Your task to perform on an android device: change notification settings in the gmail app Image 0: 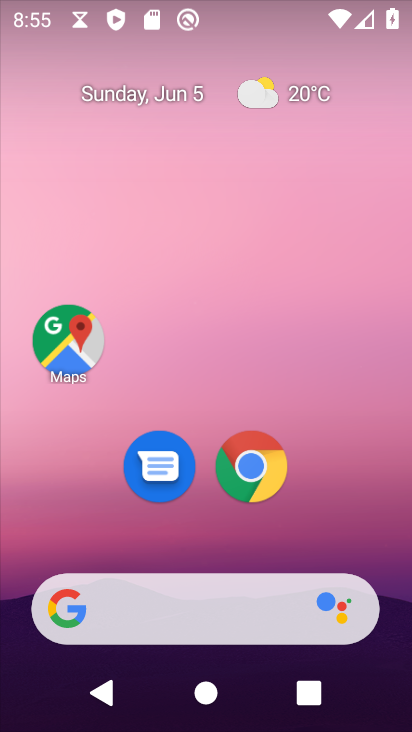
Step 0: drag from (238, 551) to (201, 128)
Your task to perform on an android device: change notification settings in the gmail app Image 1: 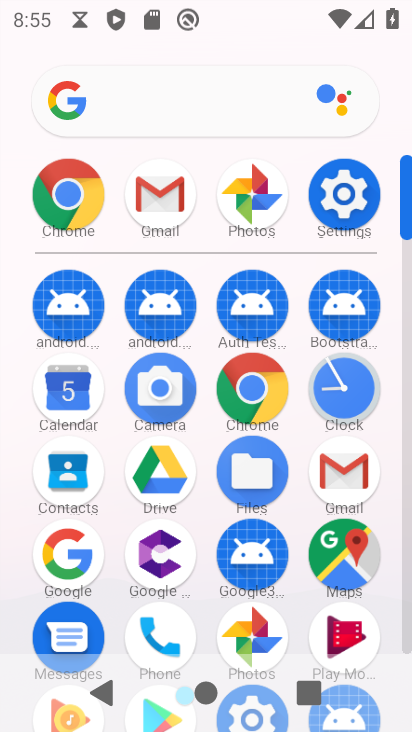
Step 1: click (156, 214)
Your task to perform on an android device: change notification settings in the gmail app Image 2: 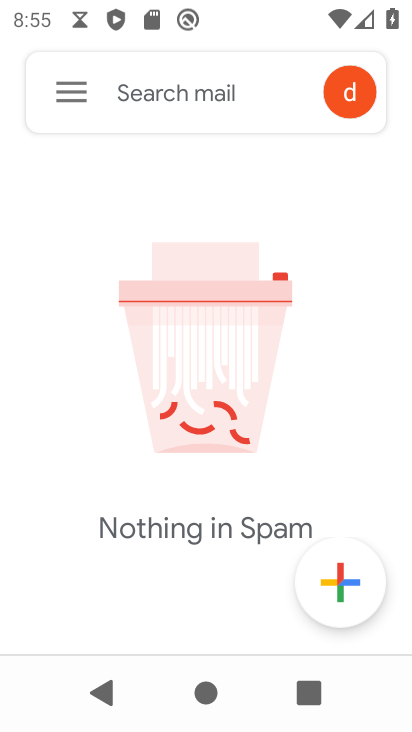
Step 2: click (73, 86)
Your task to perform on an android device: change notification settings in the gmail app Image 3: 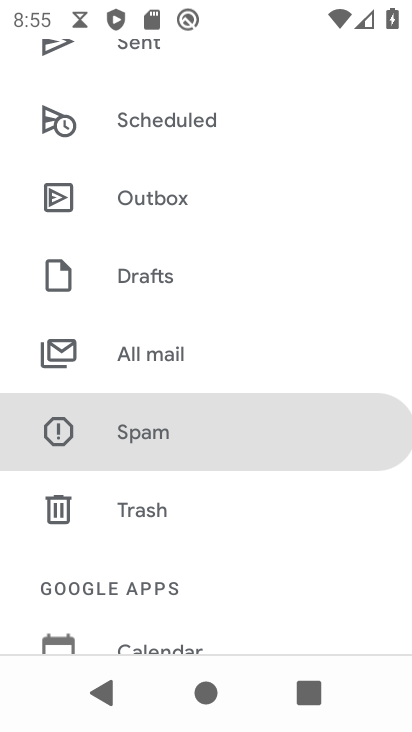
Step 3: drag from (241, 579) to (235, 262)
Your task to perform on an android device: change notification settings in the gmail app Image 4: 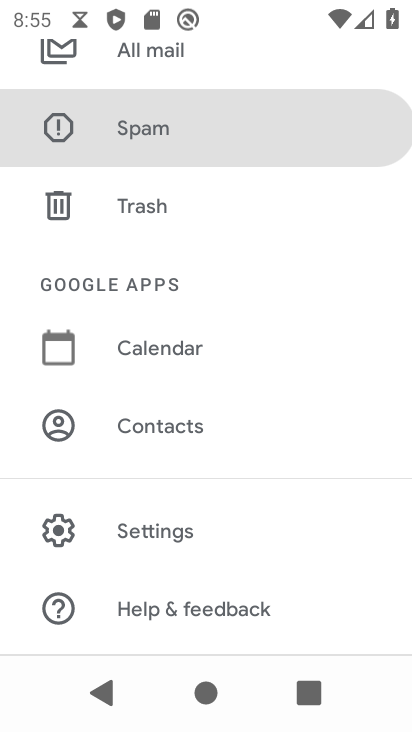
Step 4: click (141, 535)
Your task to perform on an android device: change notification settings in the gmail app Image 5: 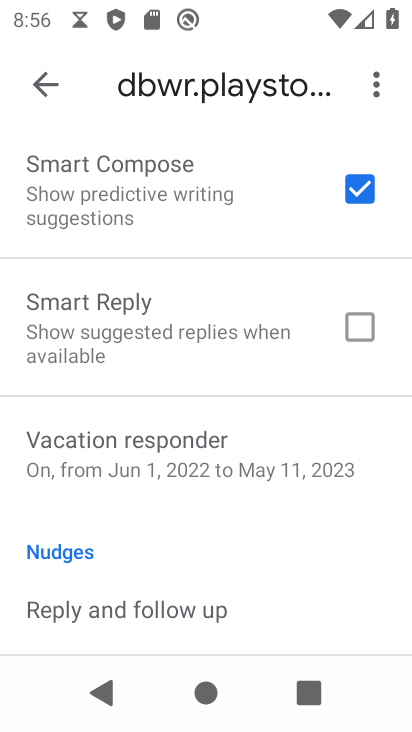
Step 5: drag from (192, 222) to (154, 571)
Your task to perform on an android device: change notification settings in the gmail app Image 6: 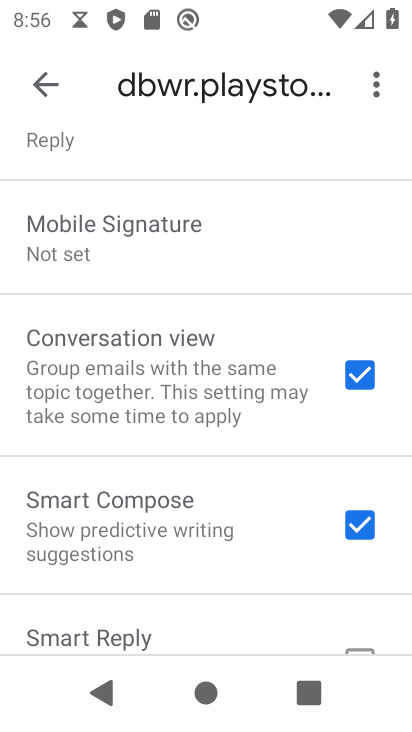
Step 6: drag from (170, 283) to (126, 557)
Your task to perform on an android device: change notification settings in the gmail app Image 7: 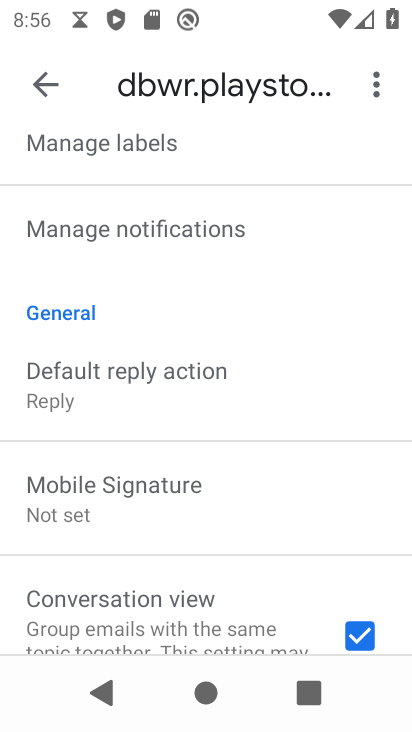
Step 7: drag from (152, 254) to (140, 580)
Your task to perform on an android device: change notification settings in the gmail app Image 8: 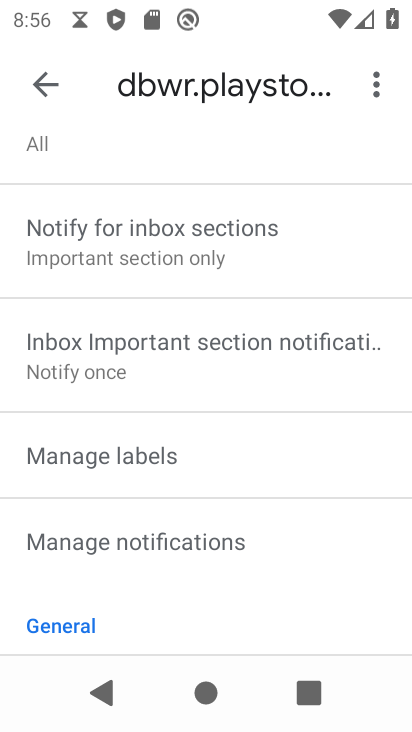
Step 8: drag from (202, 328) to (173, 534)
Your task to perform on an android device: change notification settings in the gmail app Image 9: 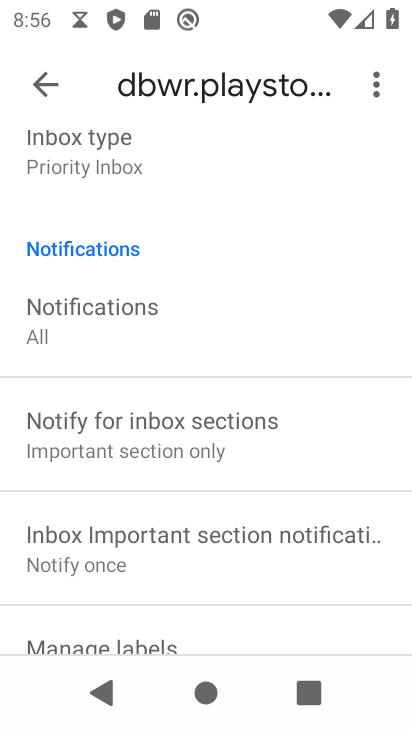
Step 9: drag from (133, 579) to (149, 239)
Your task to perform on an android device: change notification settings in the gmail app Image 10: 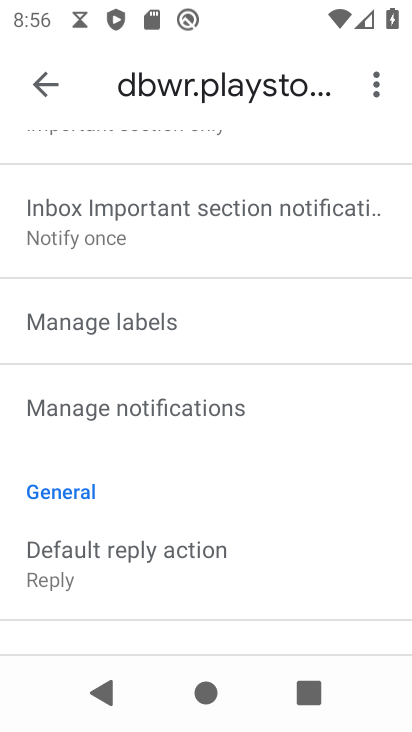
Step 10: click (174, 403)
Your task to perform on an android device: change notification settings in the gmail app Image 11: 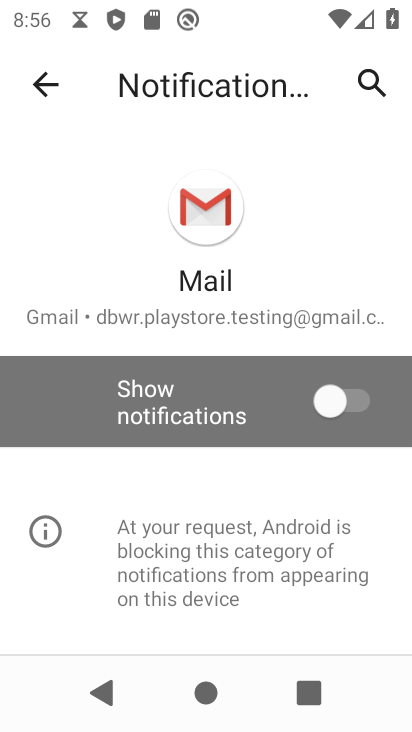
Step 11: click (345, 416)
Your task to perform on an android device: change notification settings in the gmail app Image 12: 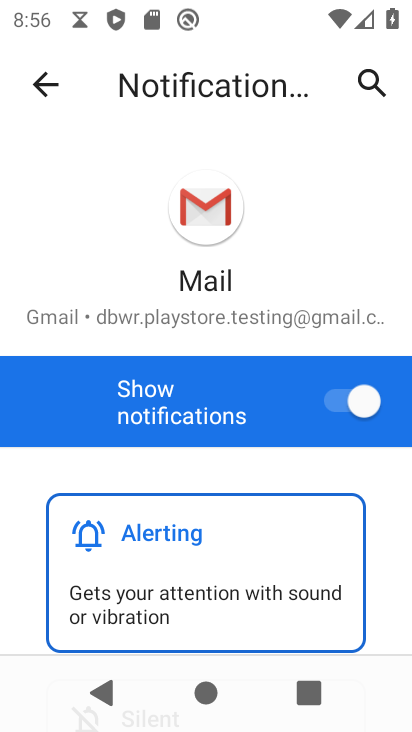
Step 12: task complete